Your task to perform on an android device: Search for Italian restaurants on Maps Image 0: 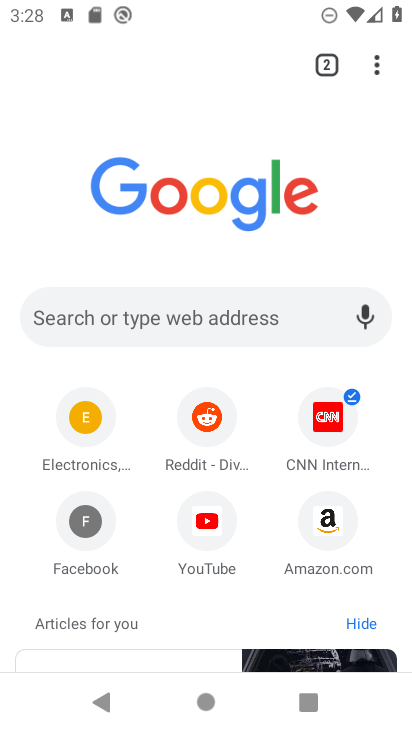
Step 0: press home button
Your task to perform on an android device: Search for Italian restaurants on Maps Image 1: 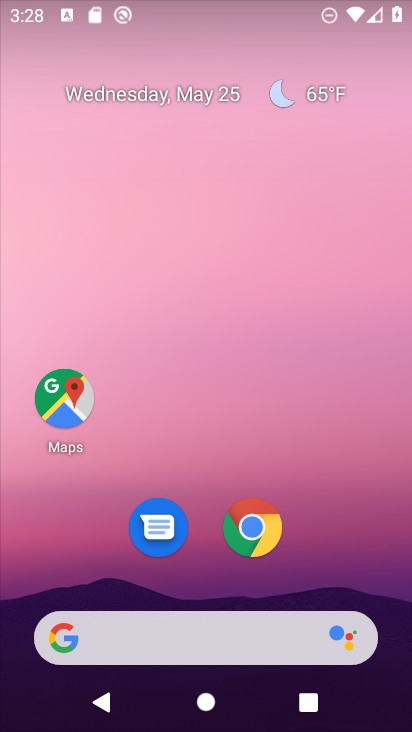
Step 1: drag from (393, 489) to (285, 4)
Your task to perform on an android device: Search for Italian restaurants on Maps Image 2: 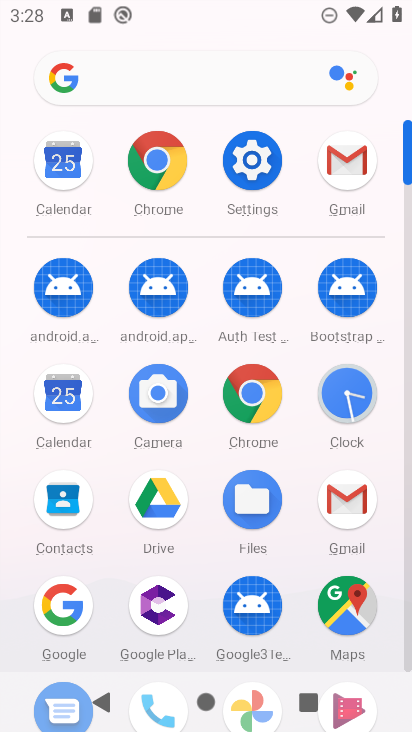
Step 2: click (340, 618)
Your task to perform on an android device: Search for Italian restaurants on Maps Image 3: 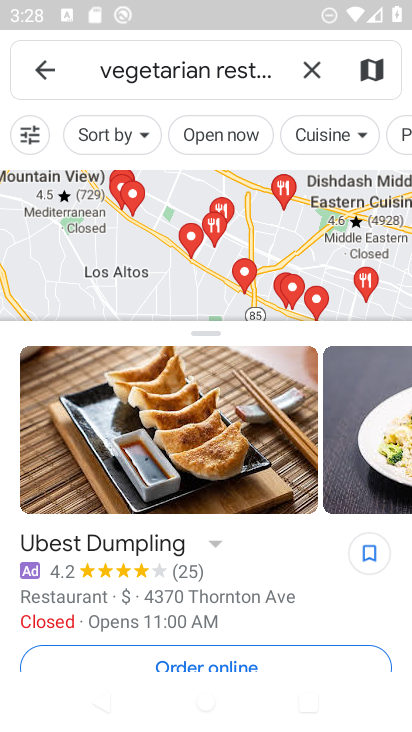
Step 3: press back button
Your task to perform on an android device: Search for Italian restaurants on Maps Image 4: 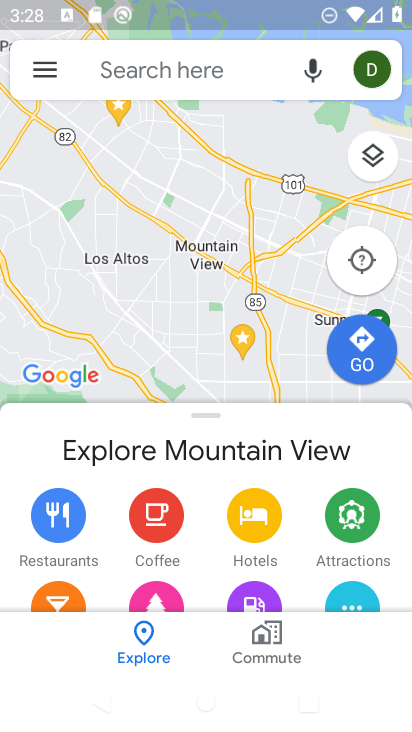
Step 4: click (256, 71)
Your task to perform on an android device: Search for Italian restaurants on Maps Image 5: 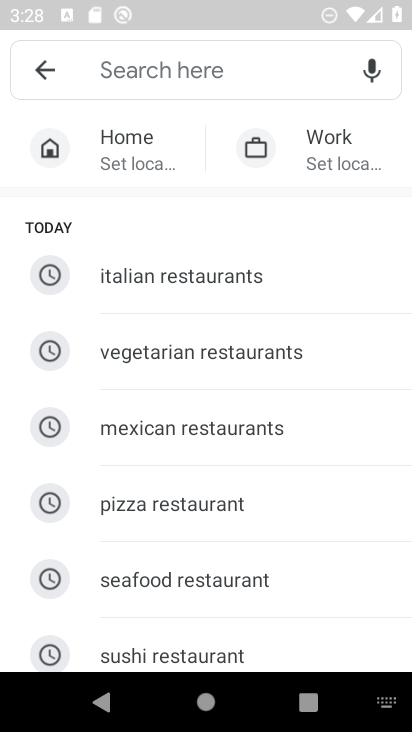
Step 5: click (222, 274)
Your task to perform on an android device: Search for Italian restaurants on Maps Image 6: 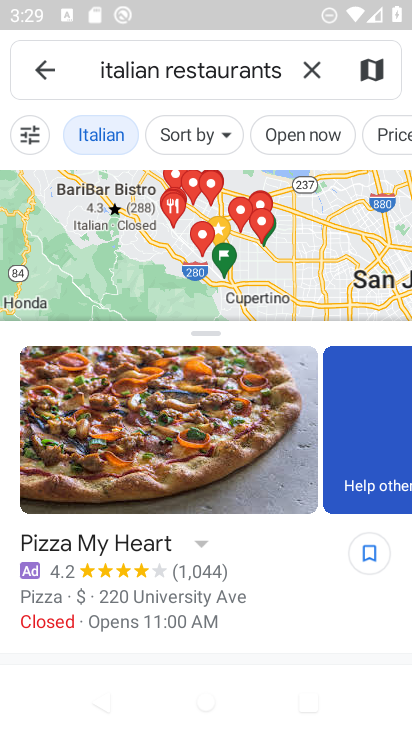
Step 6: task complete